Your task to perform on an android device: Open Maps and search for coffee Image 0: 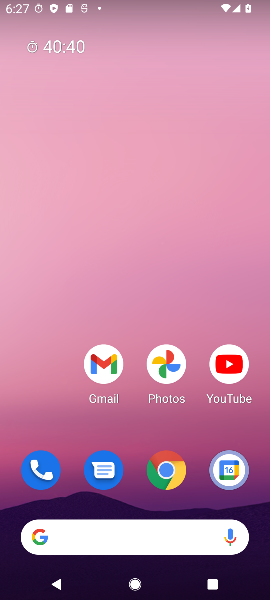
Step 0: press home button
Your task to perform on an android device: Open Maps and search for coffee Image 1: 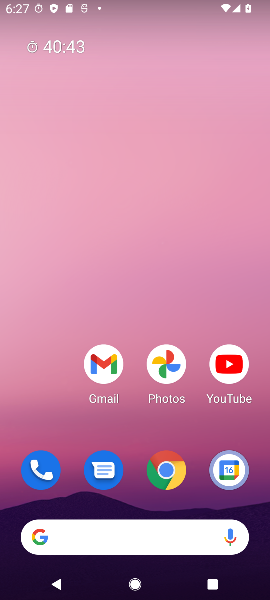
Step 1: drag from (189, 411) to (189, 229)
Your task to perform on an android device: Open Maps and search for coffee Image 2: 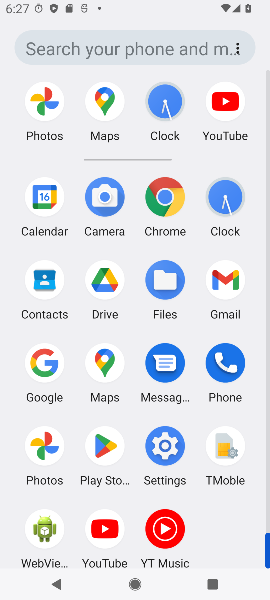
Step 2: click (99, 106)
Your task to perform on an android device: Open Maps and search for coffee Image 3: 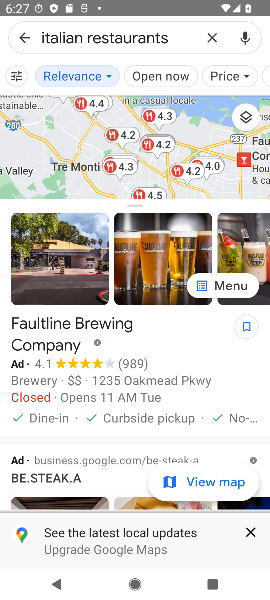
Step 3: click (213, 39)
Your task to perform on an android device: Open Maps and search for coffee Image 4: 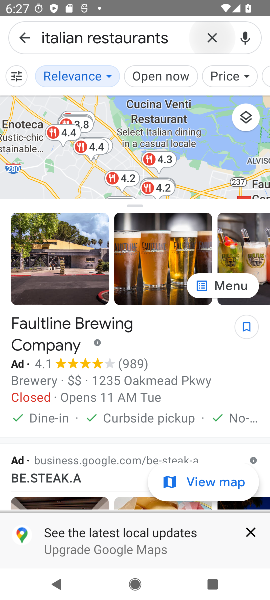
Step 4: click (164, 36)
Your task to perform on an android device: Open Maps and search for coffee Image 5: 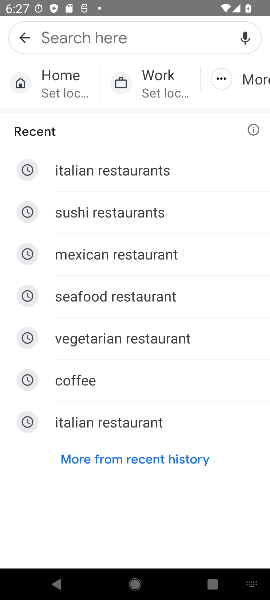
Step 5: type "coffee"
Your task to perform on an android device: Open Maps and search for coffee Image 6: 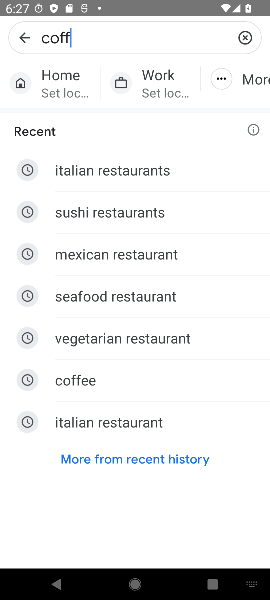
Step 6: type ""
Your task to perform on an android device: Open Maps and search for coffee Image 7: 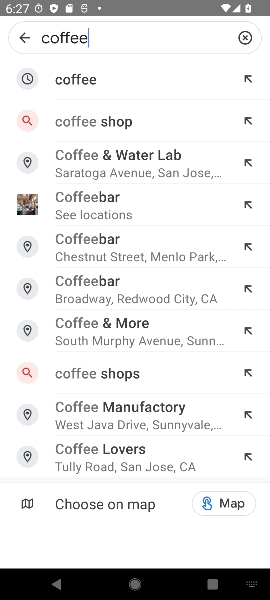
Step 7: click (57, 79)
Your task to perform on an android device: Open Maps and search for coffee Image 8: 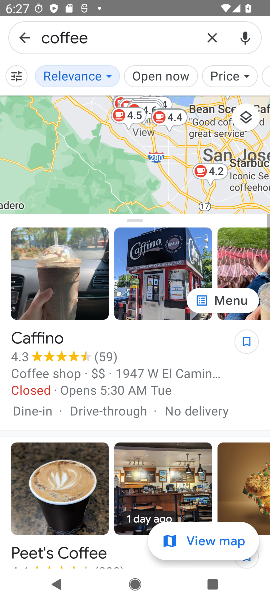
Step 8: task complete